Your task to perform on an android device: Search for pizza restaurants on Maps Image 0: 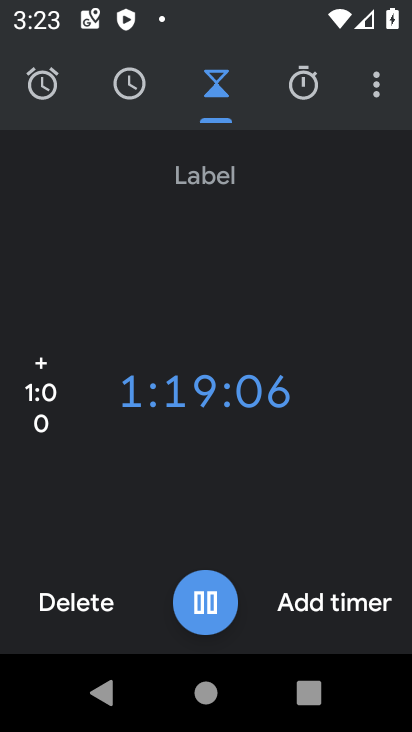
Step 0: press home button
Your task to perform on an android device: Search for pizza restaurants on Maps Image 1: 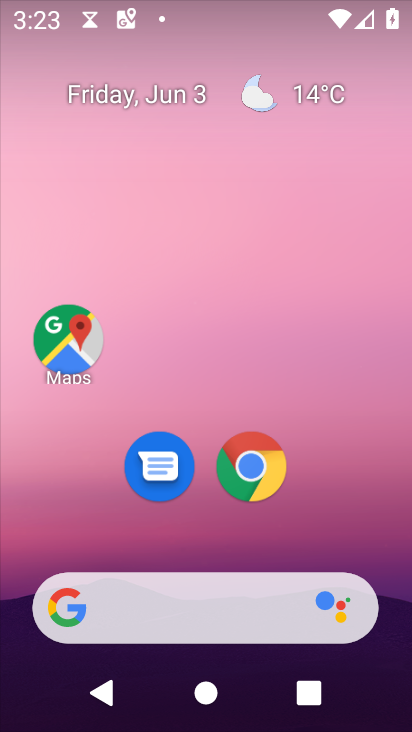
Step 1: click (84, 340)
Your task to perform on an android device: Search for pizza restaurants on Maps Image 2: 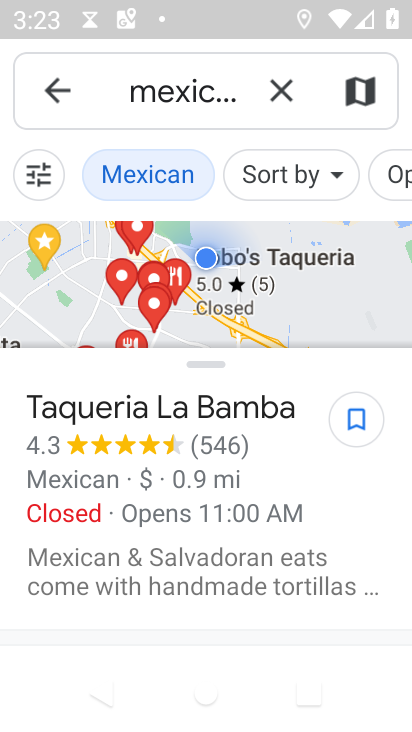
Step 2: click (293, 89)
Your task to perform on an android device: Search for pizza restaurants on Maps Image 3: 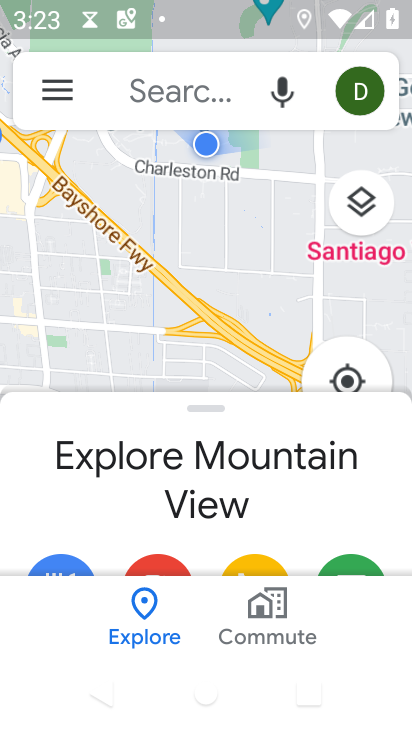
Step 3: click (204, 91)
Your task to perform on an android device: Search for pizza restaurants on Maps Image 4: 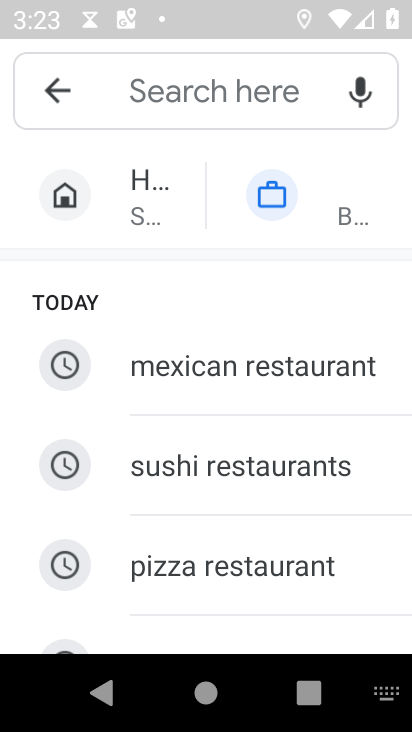
Step 4: click (211, 553)
Your task to perform on an android device: Search for pizza restaurants on Maps Image 5: 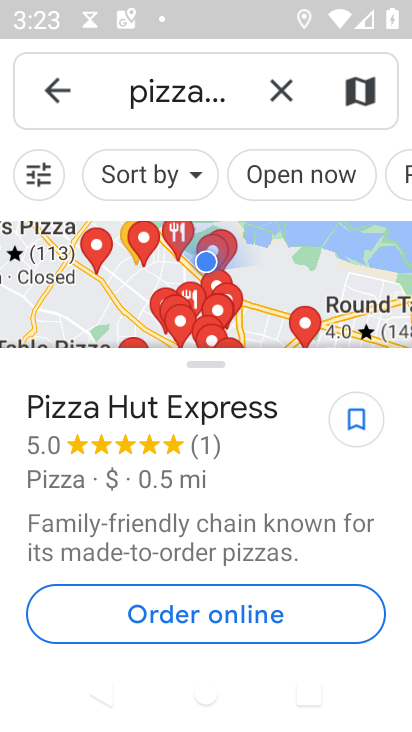
Step 5: task complete